Your task to perform on an android device: Open Chrome and go to the settings page Image 0: 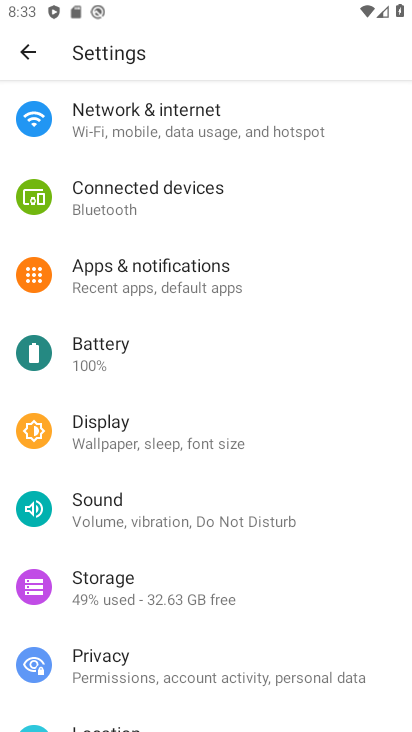
Step 0: press home button
Your task to perform on an android device: Open Chrome and go to the settings page Image 1: 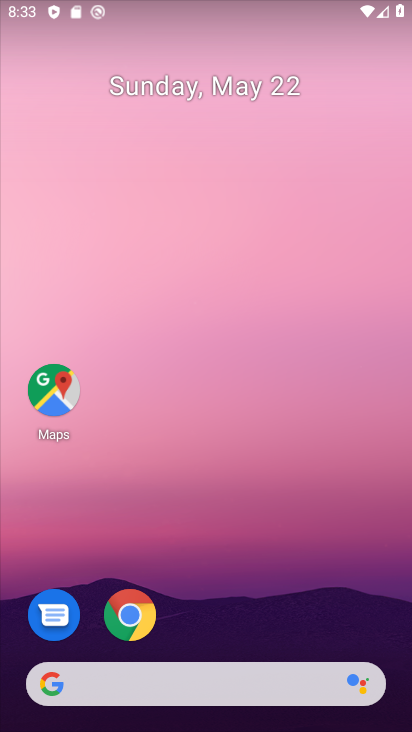
Step 1: drag from (270, 617) to (317, 287)
Your task to perform on an android device: Open Chrome and go to the settings page Image 2: 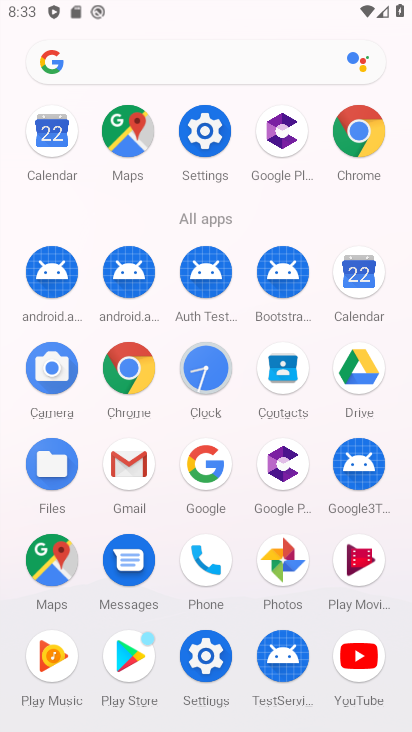
Step 2: click (126, 363)
Your task to perform on an android device: Open Chrome and go to the settings page Image 3: 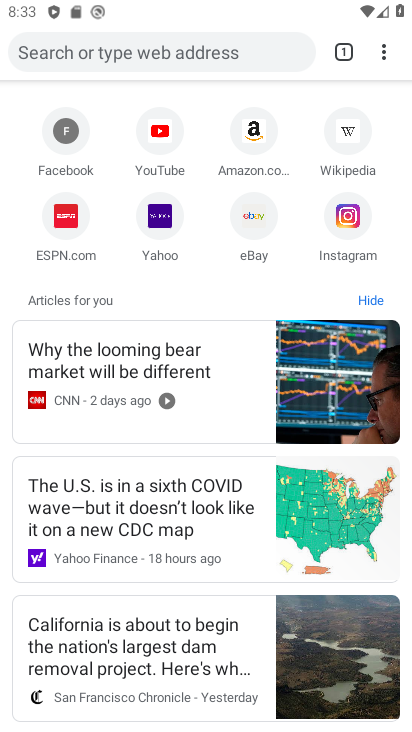
Step 3: click (378, 44)
Your task to perform on an android device: Open Chrome and go to the settings page Image 4: 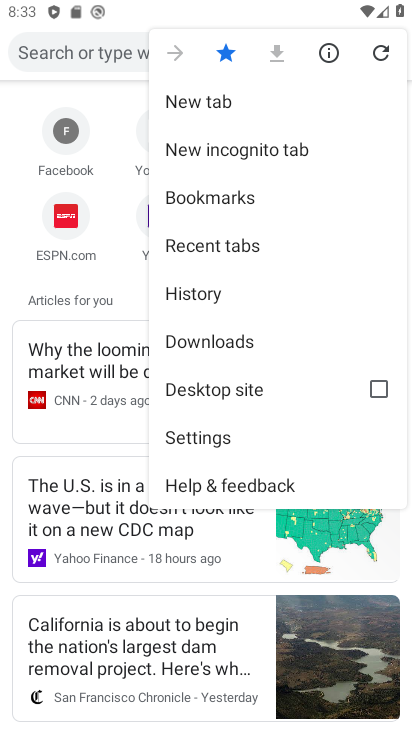
Step 4: click (234, 433)
Your task to perform on an android device: Open Chrome and go to the settings page Image 5: 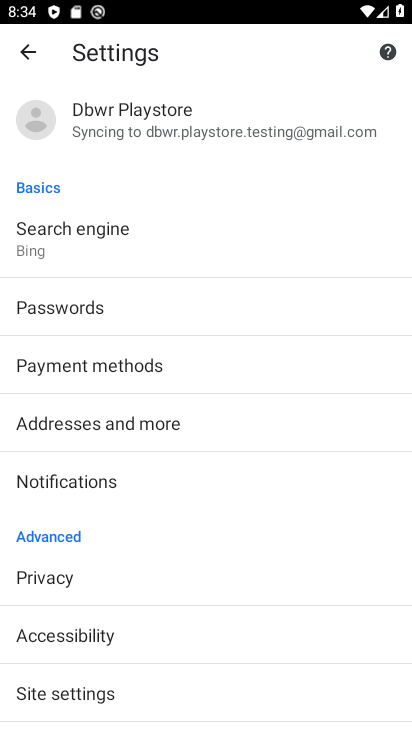
Step 5: task complete